Your task to perform on an android device: turn off wifi Image 0: 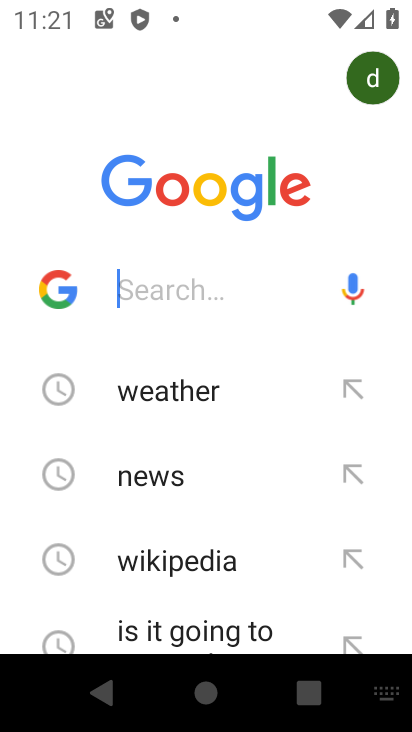
Step 0: press back button
Your task to perform on an android device: turn off wifi Image 1: 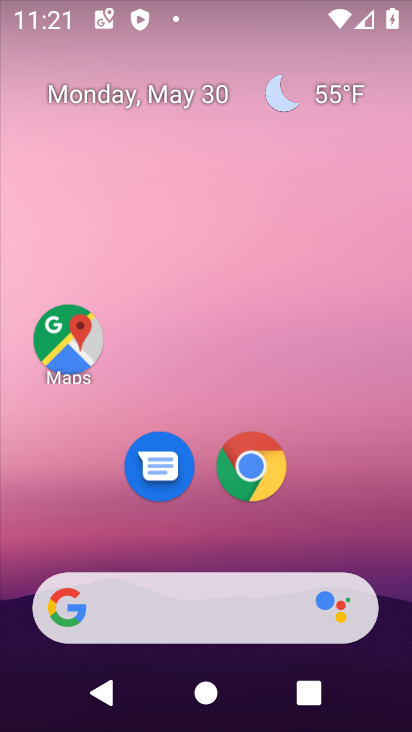
Step 1: drag from (178, 9) to (143, 467)
Your task to perform on an android device: turn off wifi Image 2: 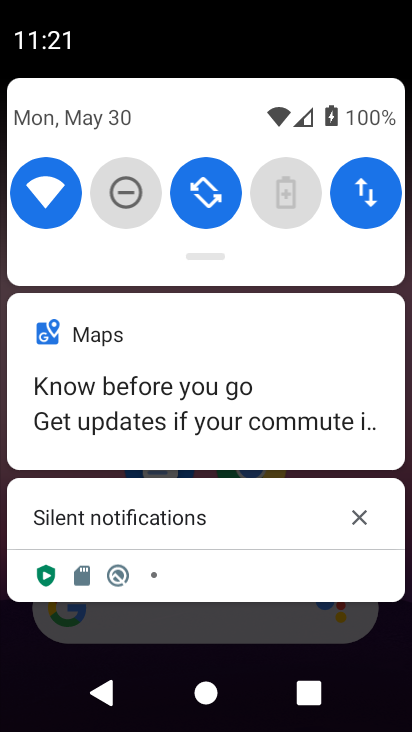
Step 2: click (47, 178)
Your task to perform on an android device: turn off wifi Image 3: 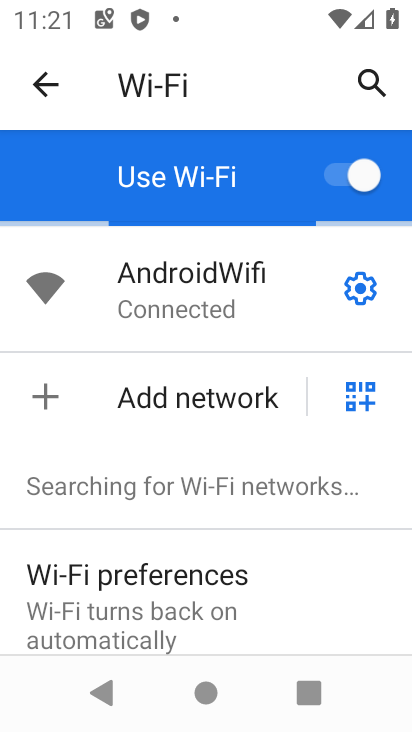
Step 3: click (343, 185)
Your task to perform on an android device: turn off wifi Image 4: 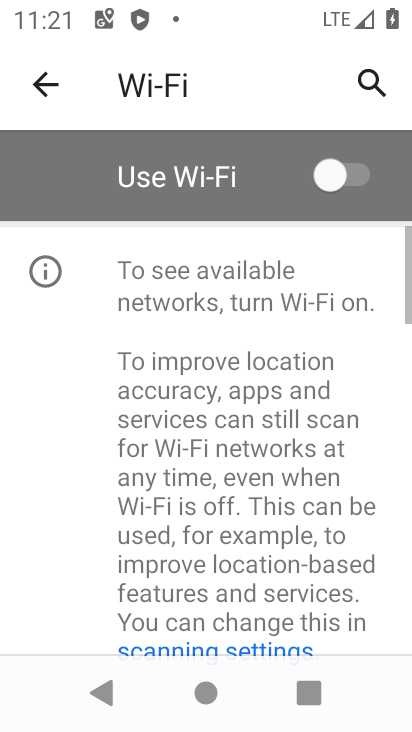
Step 4: task complete